Your task to perform on an android device: delete browsing data in the chrome app Image 0: 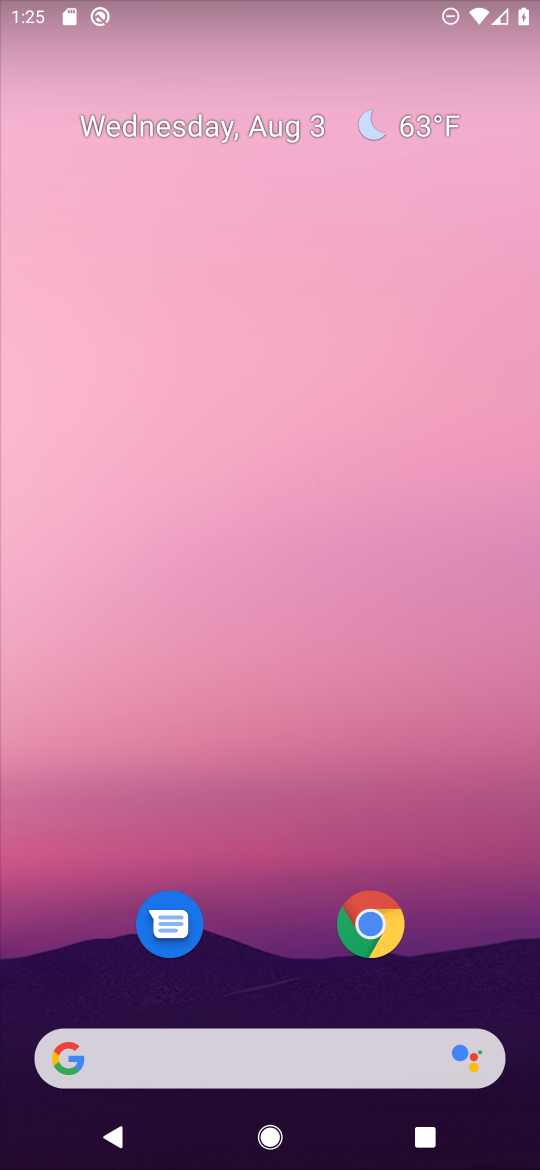
Step 0: click (347, 920)
Your task to perform on an android device: delete browsing data in the chrome app Image 1: 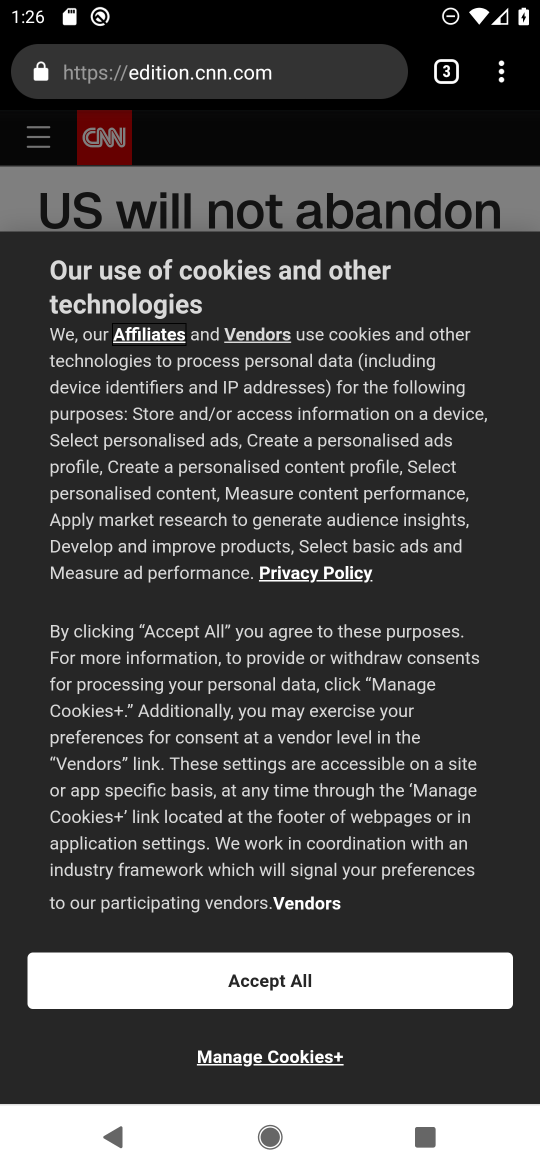
Step 1: drag from (502, 78) to (243, 407)
Your task to perform on an android device: delete browsing data in the chrome app Image 2: 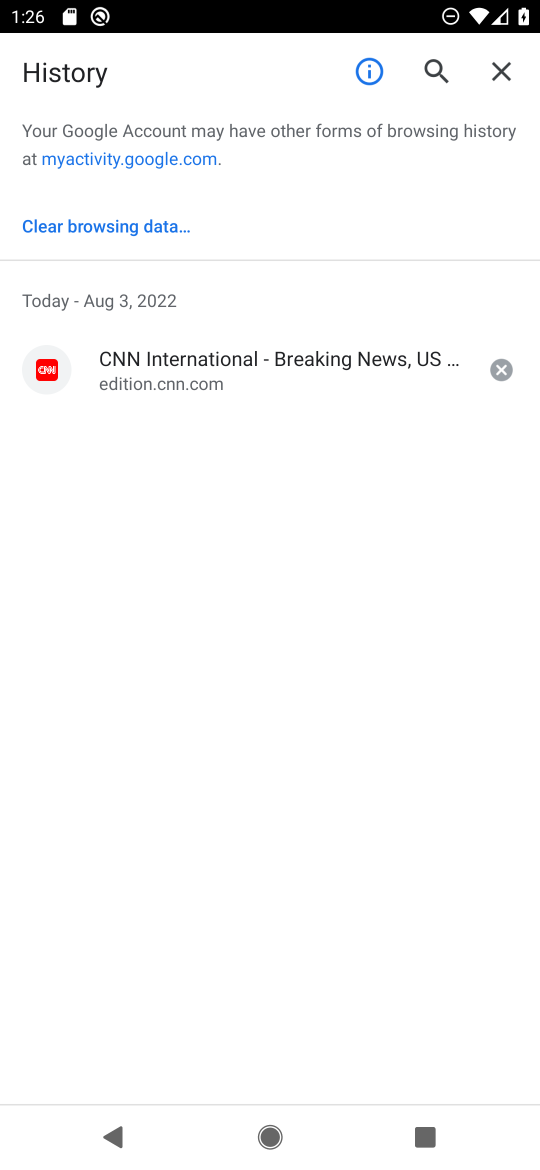
Step 2: click (62, 232)
Your task to perform on an android device: delete browsing data in the chrome app Image 3: 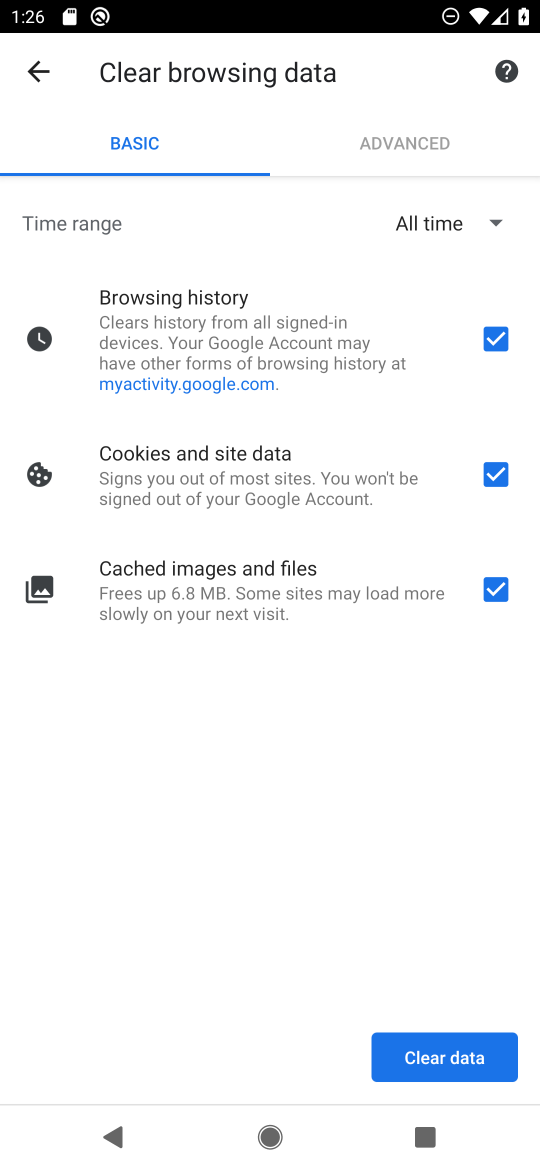
Step 3: click (443, 1067)
Your task to perform on an android device: delete browsing data in the chrome app Image 4: 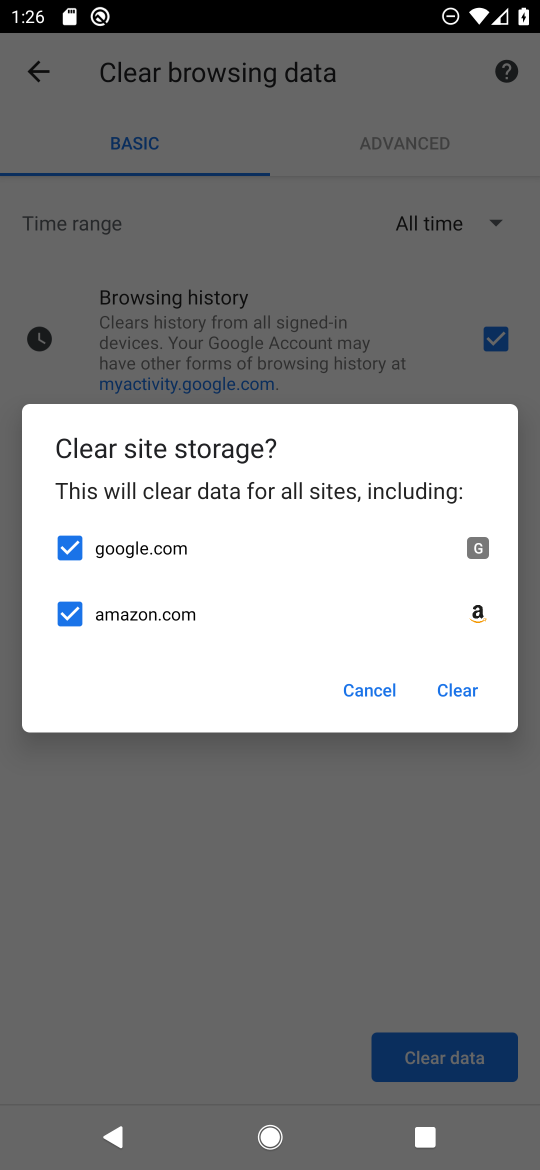
Step 4: click (476, 692)
Your task to perform on an android device: delete browsing data in the chrome app Image 5: 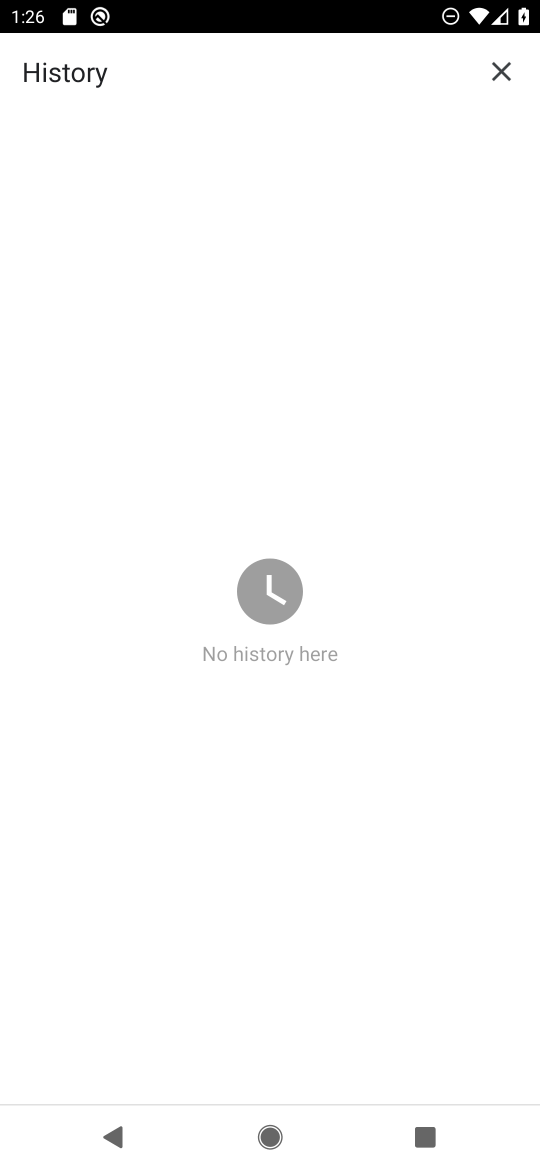
Step 5: task complete